Your task to perform on an android device: Go to display settings Image 0: 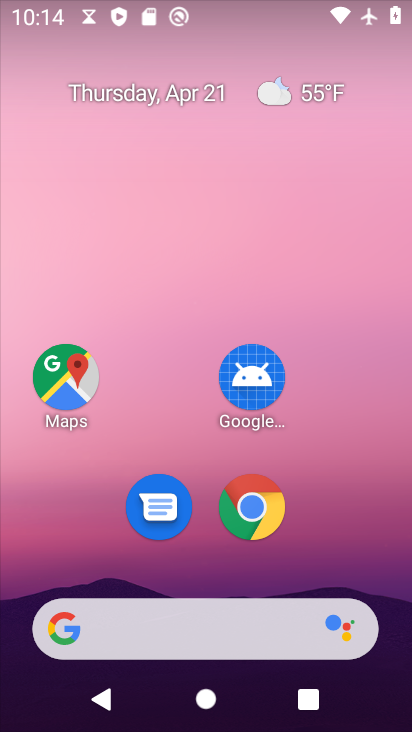
Step 0: drag from (334, 531) to (281, 118)
Your task to perform on an android device: Go to display settings Image 1: 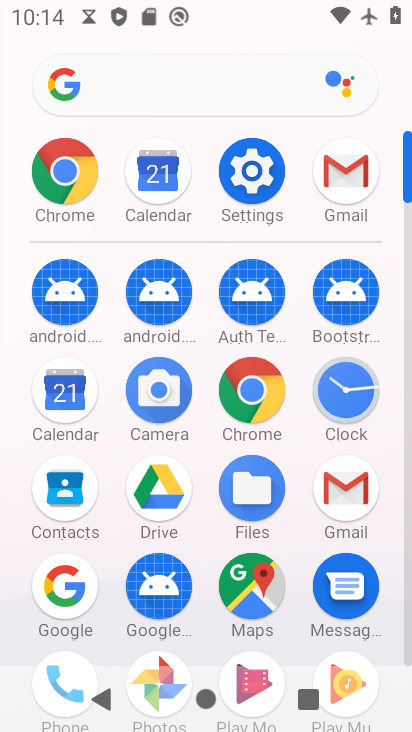
Step 1: click (256, 170)
Your task to perform on an android device: Go to display settings Image 2: 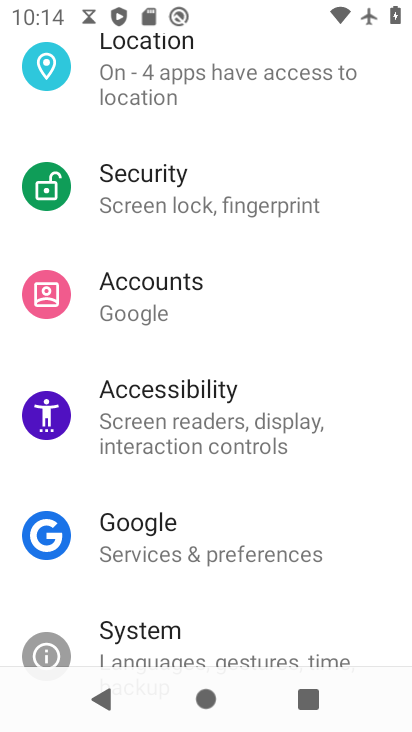
Step 2: drag from (233, 206) to (194, 646)
Your task to perform on an android device: Go to display settings Image 3: 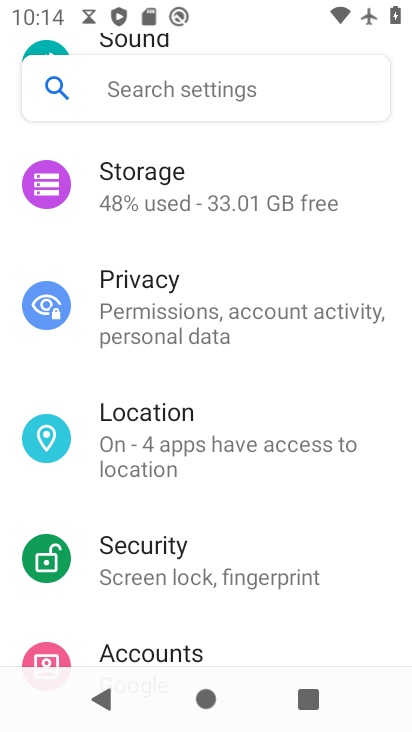
Step 3: drag from (211, 253) to (186, 687)
Your task to perform on an android device: Go to display settings Image 4: 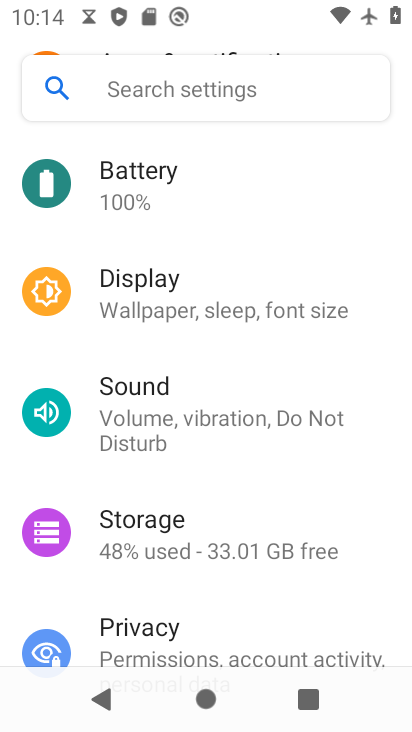
Step 4: click (162, 294)
Your task to perform on an android device: Go to display settings Image 5: 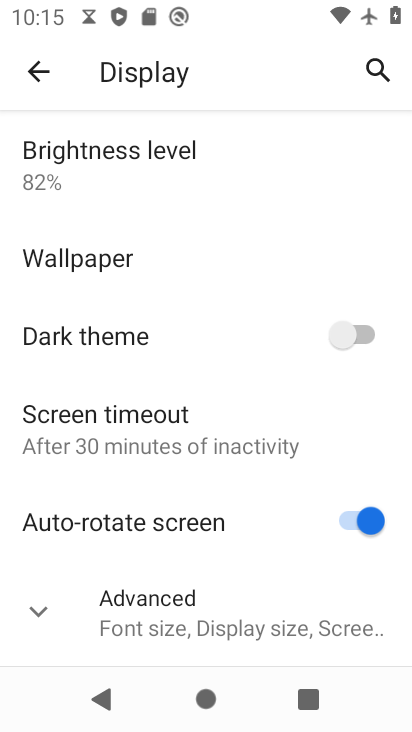
Step 5: task complete